Your task to perform on an android device: open app "Expedia: Hotels, Flights & Car" Image 0: 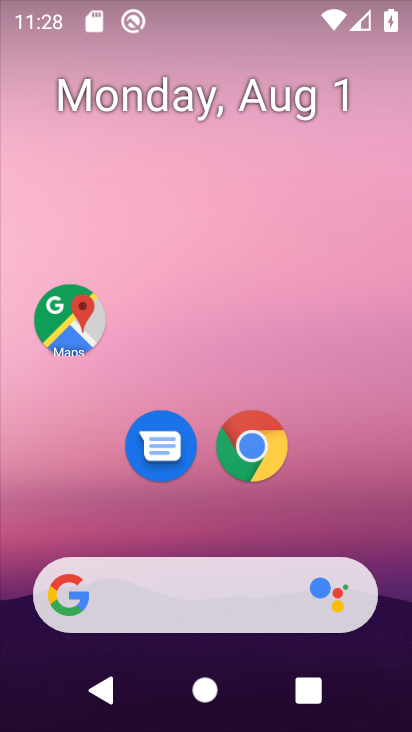
Step 0: drag from (178, 515) to (201, 96)
Your task to perform on an android device: open app "Expedia: Hotels, Flights & Car" Image 1: 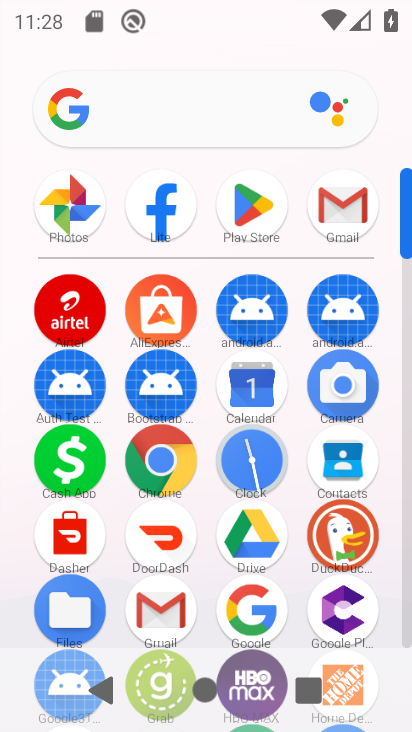
Step 1: click (245, 215)
Your task to perform on an android device: open app "Expedia: Hotels, Flights & Car" Image 2: 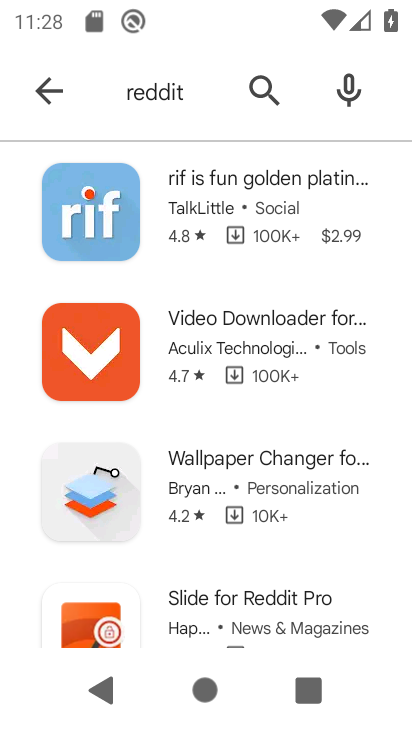
Step 2: drag from (244, 104) to (297, 104)
Your task to perform on an android device: open app "Expedia: Hotels, Flights & Car" Image 3: 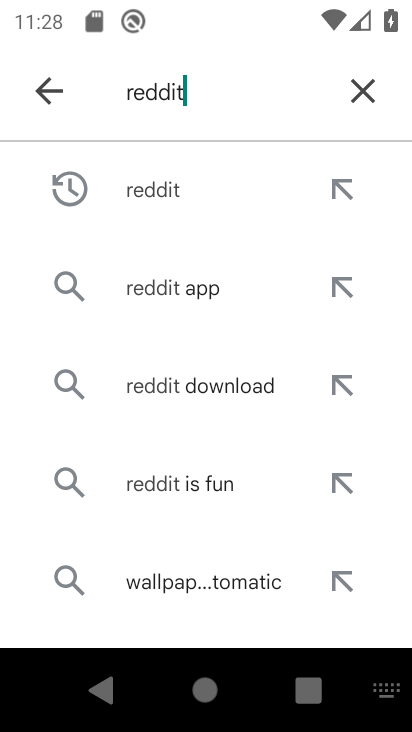
Step 3: click (368, 88)
Your task to perform on an android device: open app "Expedia: Hotels, Flights & Car" Image 4: 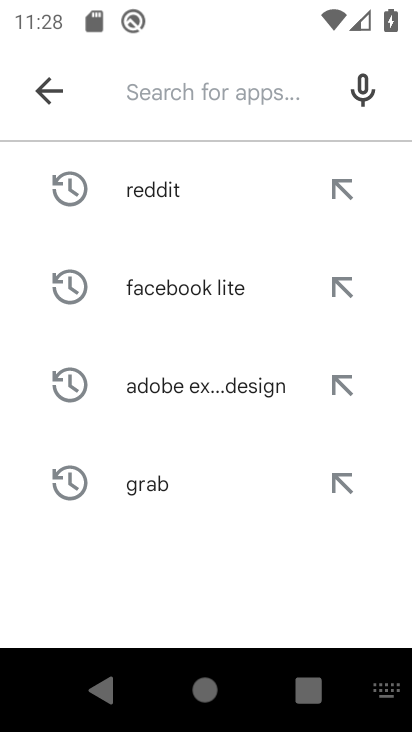
Step 4: type "Expedia: Hotels, Flights & Car"
Your task to perform on an android device: open app "Expedia: Hotels, Flights & Car" Image 5: 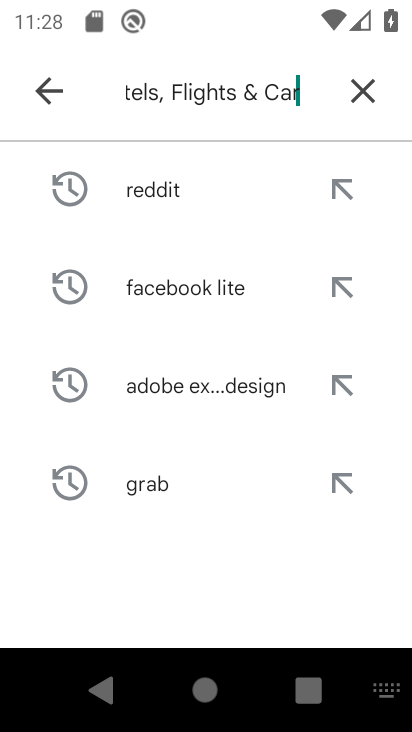
Step 5: type ""
Your task to perform on an android device: open app "Expedia: Hotels, Flights & Car" Image 6: 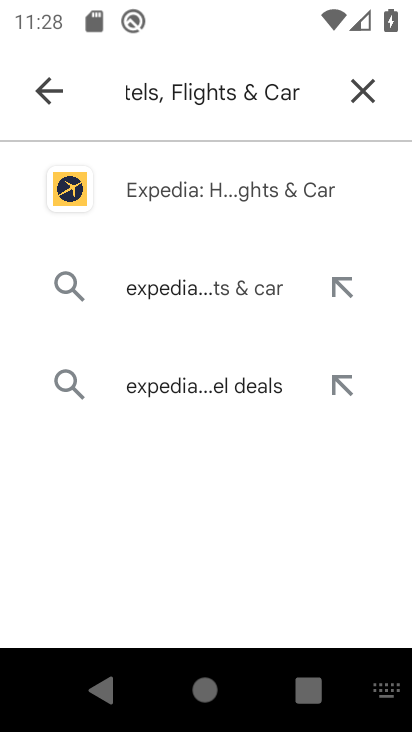
Step 6: click (213, 198)
Your task to perform on an android device: open app "Expedia: Hotels, Flights & Car" Image 7: 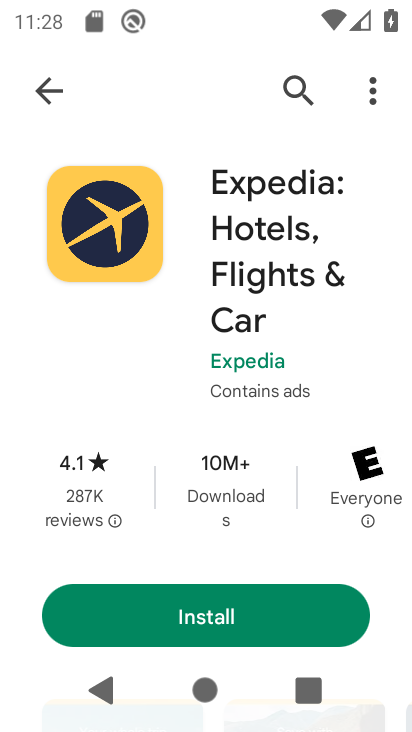
Step 7: task complete